Your task to perform on an android device: refresh tabs in the chrome app Image 0: 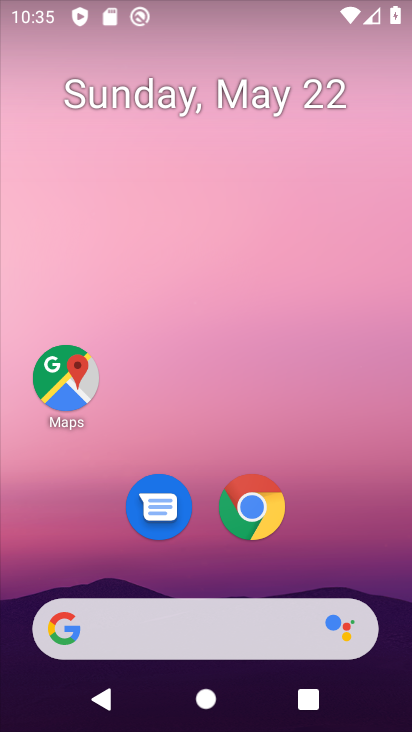
Step 0: click (264, 519)
Your task to perform on an android device: refresh tabs in the chrome app Image 1: 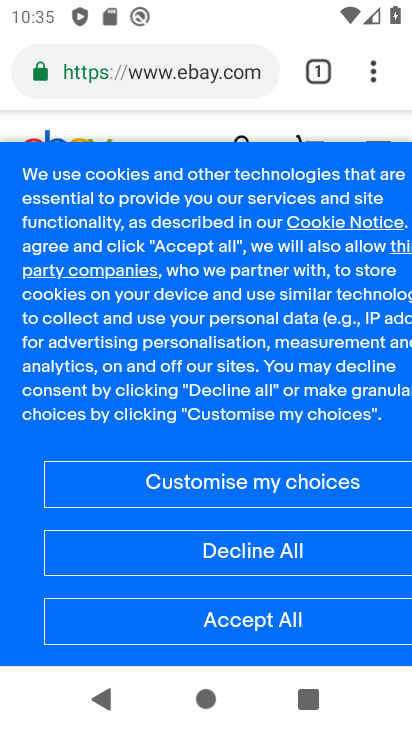
Step 1: click (361, 84)
Your task to perform on an android device: refresh tabs in the chrome app Image 2: 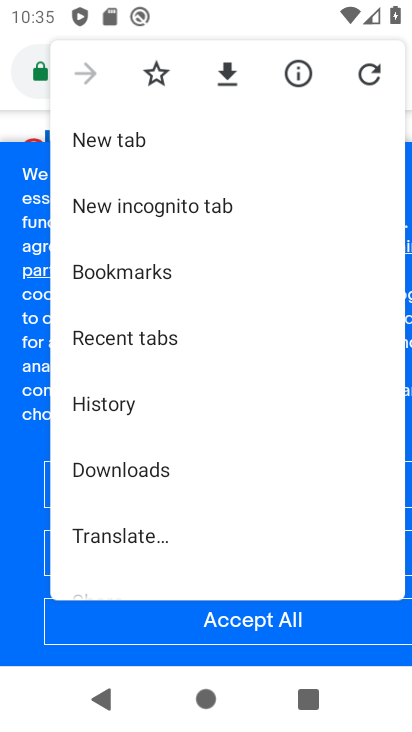
Step 2: click (349, 81)
Your task to perform on an android device: refresh tabs in the chrome app Image 3: 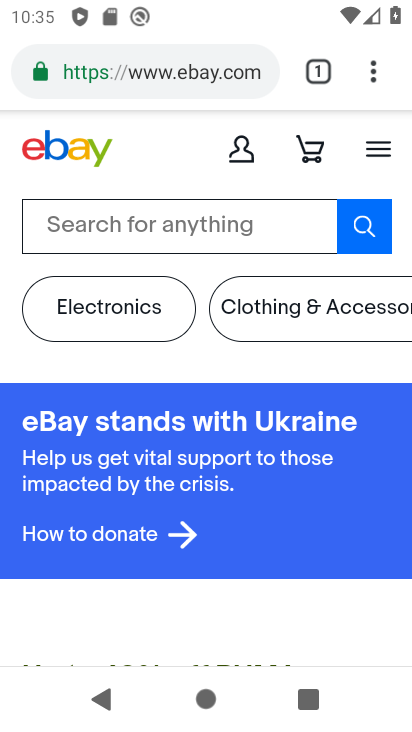
Step 3: task complete